Your task to perform on an android device: What's the weather? Image 0: 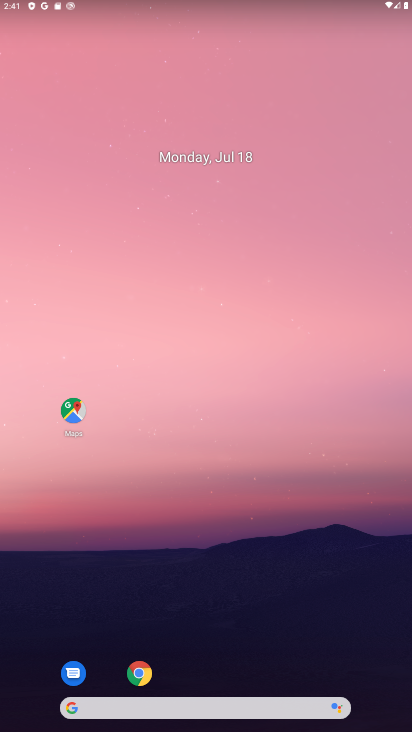
Step 0: drag from (6, 309) to (411, 254)
Your task to perform on an android device: What's the weather? Image 1: 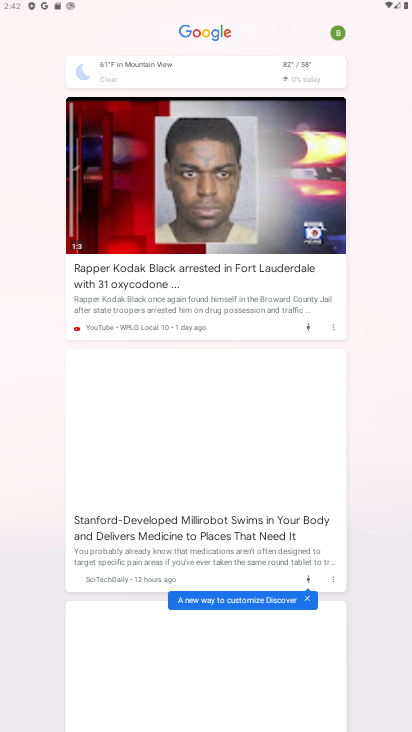
Step 1: click (254, 68)
Your task to perform on an android device: What's the weather? Image 2: 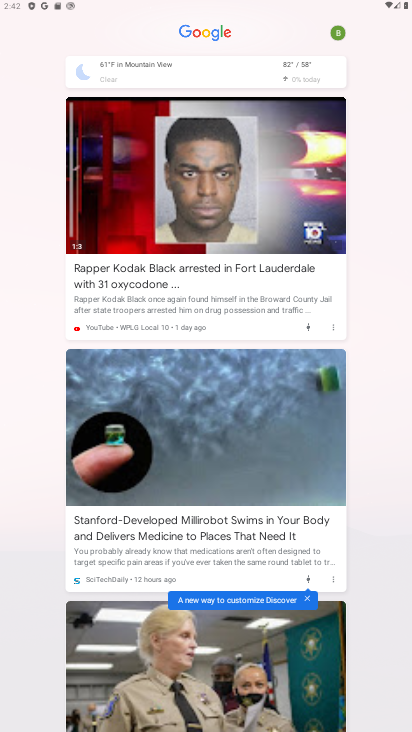
Step 2: click (270, 67)
Your task to perform on an android device: What's the weather? Image 3: 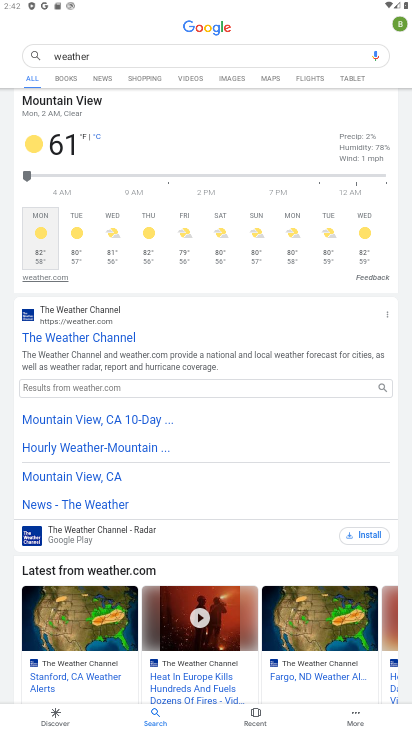
Step 3: task complete